Your task to perform on an android device: turn off data saver in the chrome app Image 0: 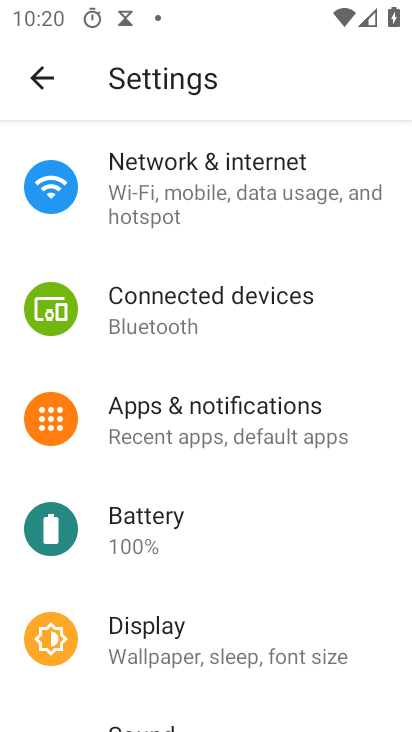
Step 0: press home button
Your task to perform on an android device: turn off data saver in the chrome app Image 1: 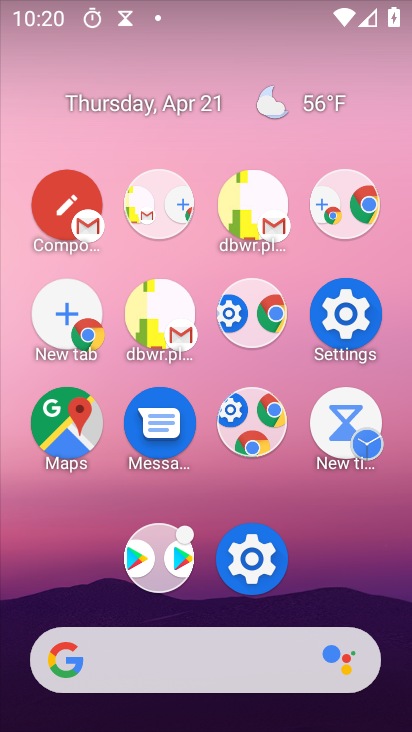
Step 1: drag from (338, 614) to (99, 4)
Your task to perform on an android device: turn off data saver in the chrome app Image 2: 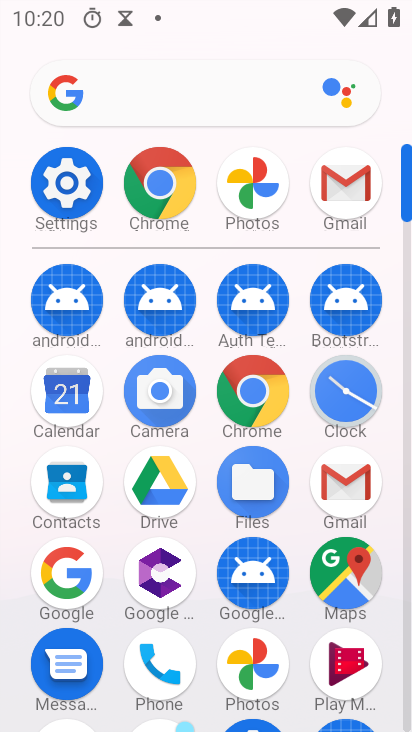
Step 2: click (163, 175)
Your task to perform on an android device: turn off data saver in the chrome app Image 3: 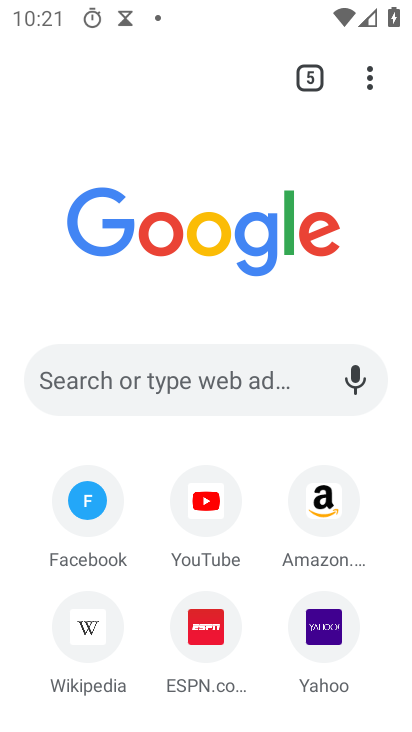
Step 3: drag from (374, 70) to (89, 607)
Your task to perform on an android device: turn off data saver in the chrome app Image 4: 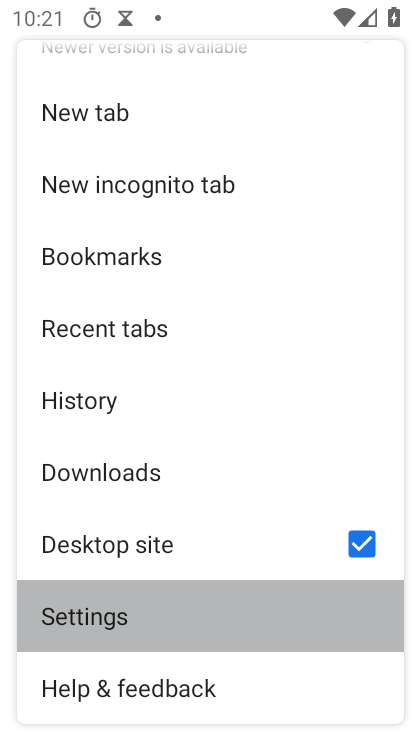
Step 4: click (89, 607)
Your task to perform on an android device: turn off data saver in the chrome app Image 5: 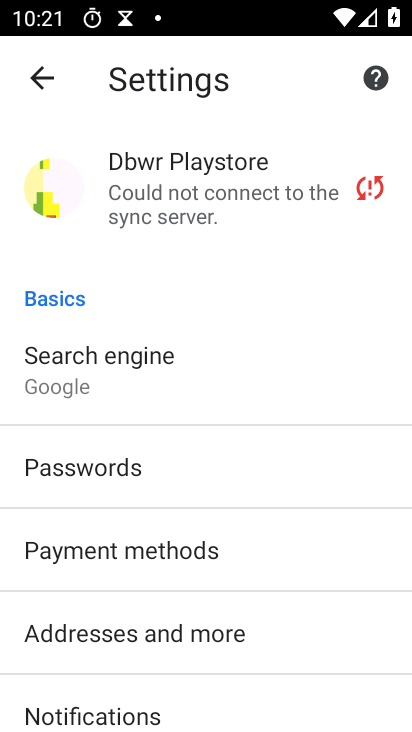
Step 5: drag from (238, 614) to (200, 258)
Your task to perform on an android device: turn off data saver in the chrome app Image 6: 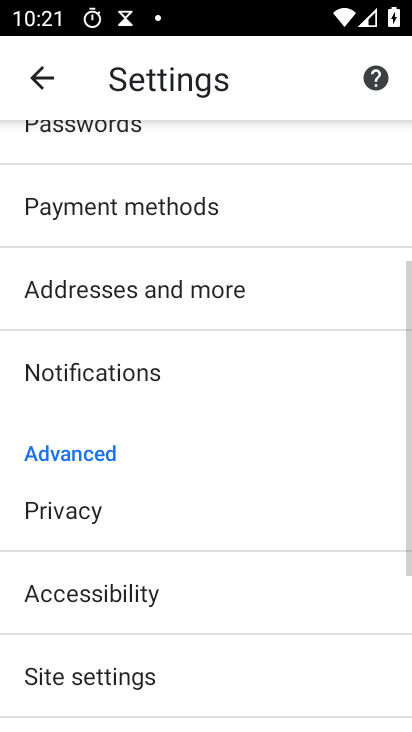
Step 6: drag from (198, 543) to (173, 96)
Your task to perform on an android device: turn off data saver in the chrome app Image 7: 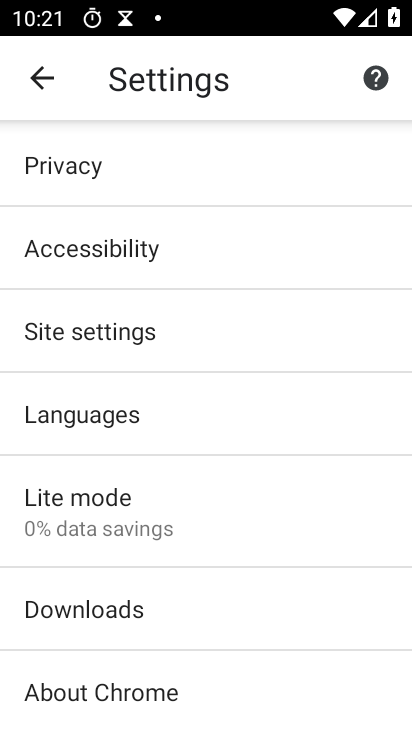
Step 7: click (67, 497)
Your task to perform on an android device: turn off data saver in the chrome app Image 8: 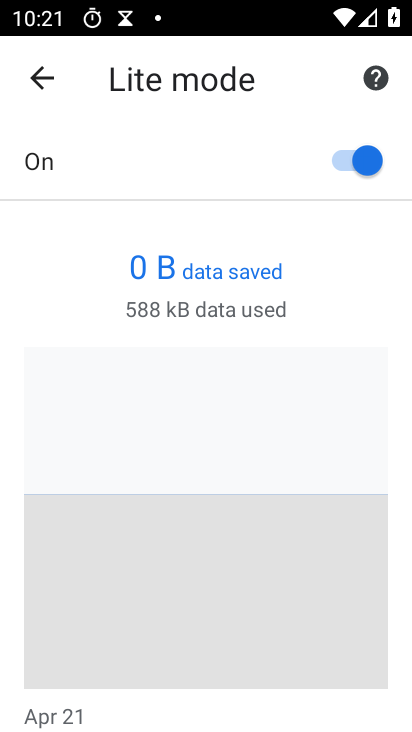
Step 8: click (357, 158)
Your task to perform on an android device: turn off data saver in the chrome app Image 9: 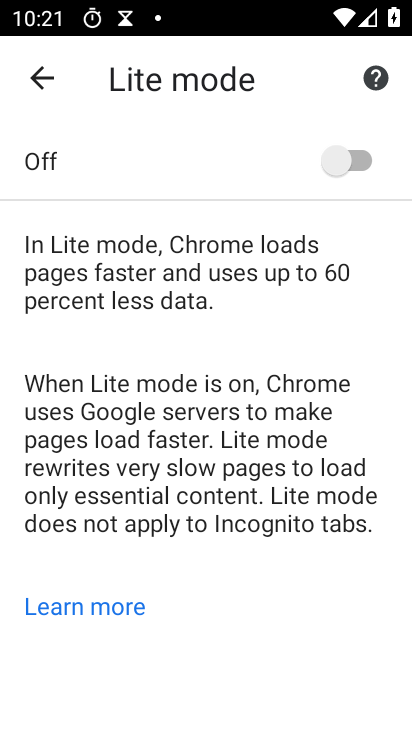
Step 9: task complete